Your task to perform on an android device: change the clock style Image 0: 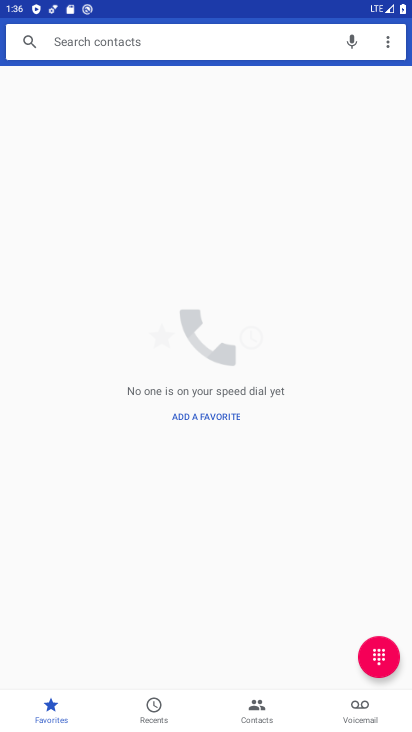
Step 0: press home button
Your task to perform on an android device: change the clock style Image 1: 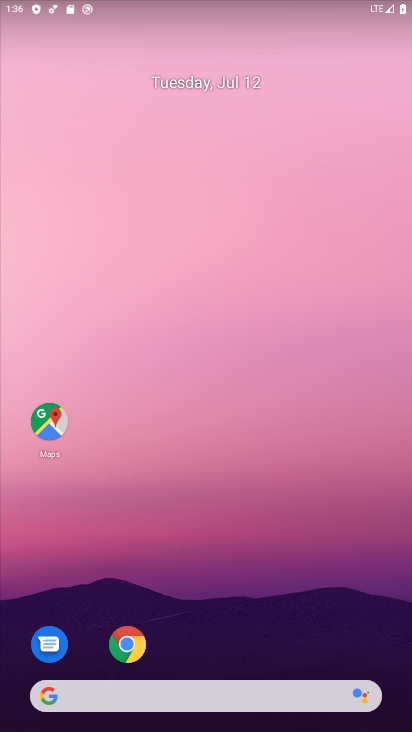
Step 1: drag from (201, 686) to (182, 190)
Your task to perform on an android device: change the clock style Image 2: 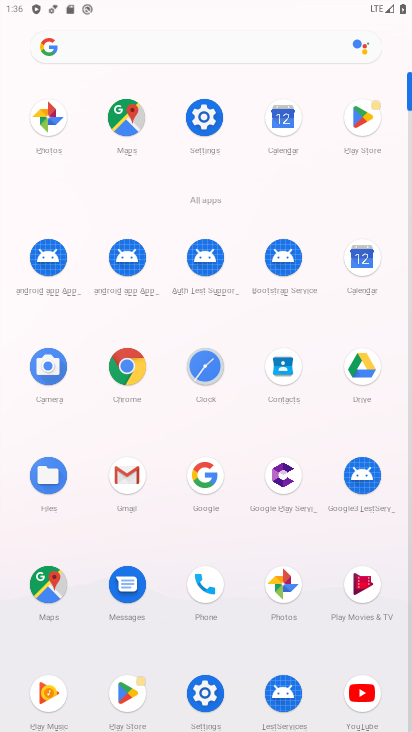
Step 2: click (218, 379)
Your task to perform on an android device: change the clock style Image 3: 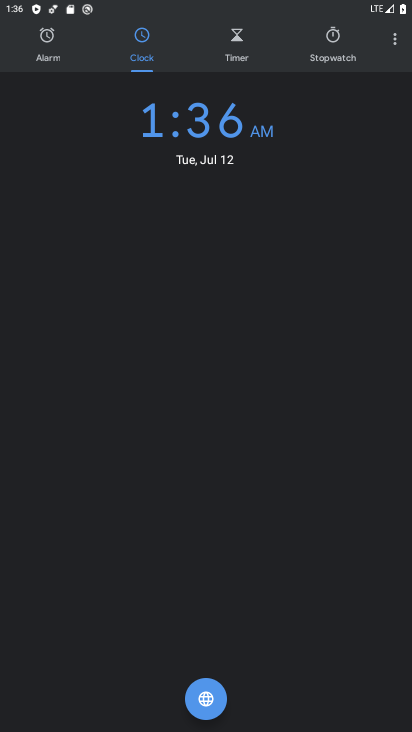
Step 3: click (386, 43)
Your task to perform on an android device: change the clock style Image 4: 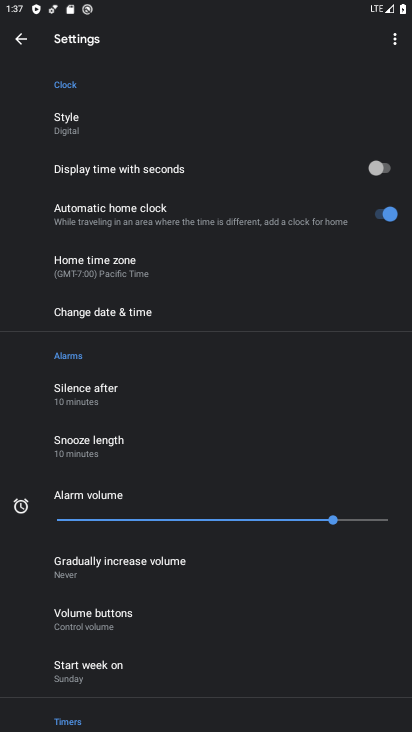
Step 4: drag from (138, 653) to (84, 217)
Your task to perform on an android device: change the clock style Image 5: 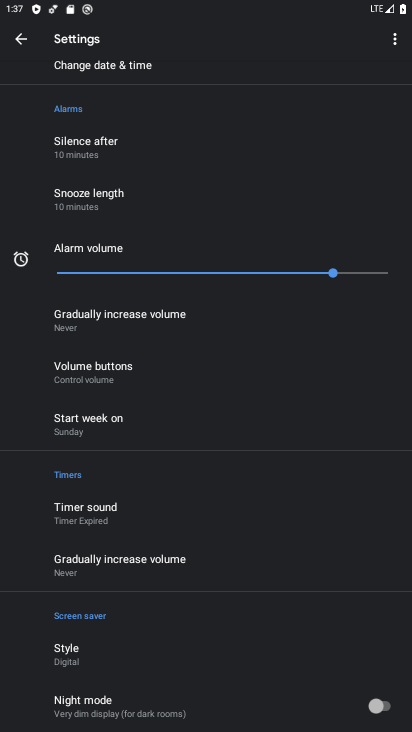
Step 5: click (102, 652)
Your task to perform on an android device: change the clock style Image 6: 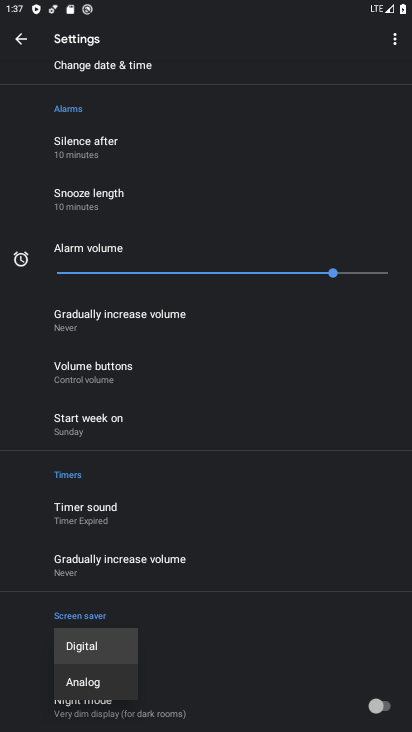
Step 6: click (102, 677)
Your task to perform on an android device: change the clock style Image 7: 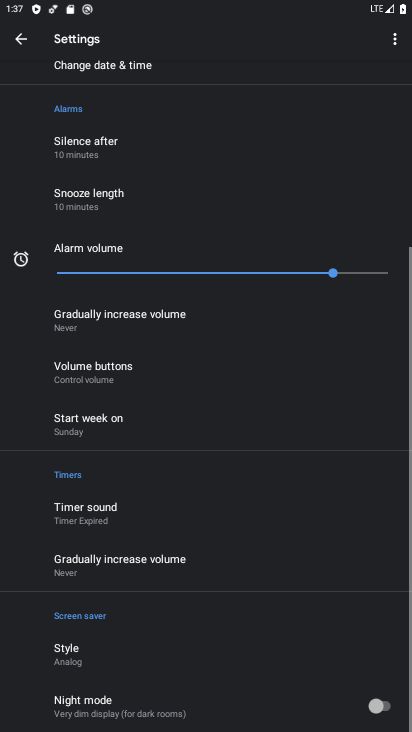
Step 7: task complete